Your task to perform on an android device: turn off location history Image 0: 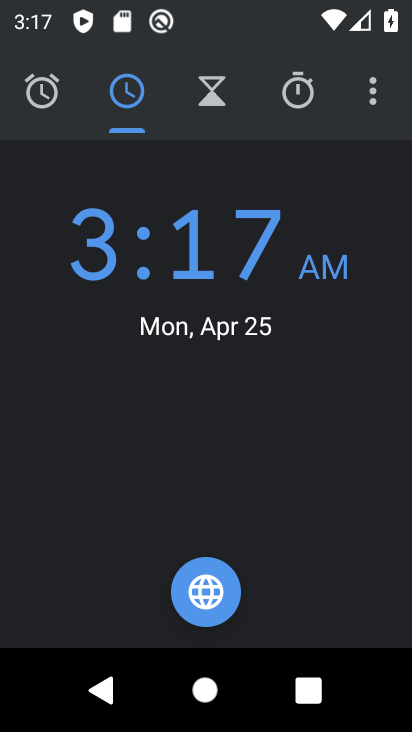
Step 0: press home button
Your task to perform on an android device: turn off location history Image 1: 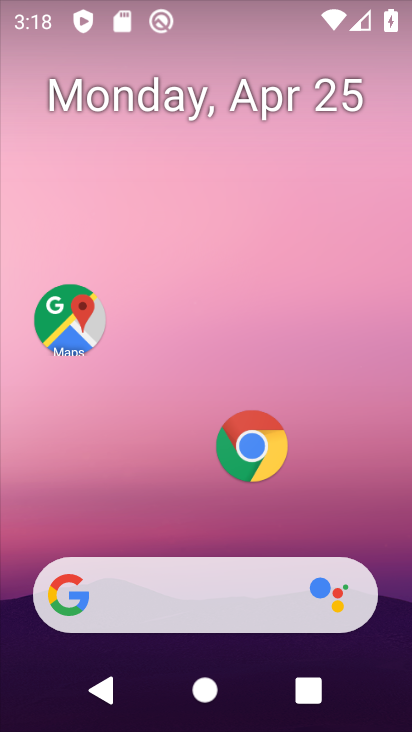
Step 1: drag from (157, 524) to (254, 10)
Your task to perform on an android device: turn off location history Image 2: 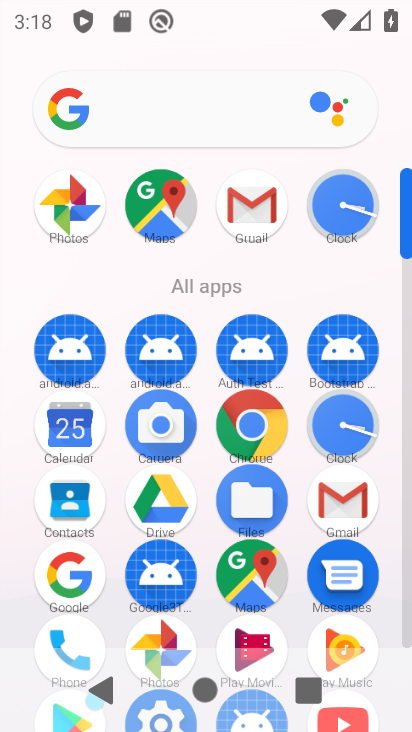
Step 2: drag from (127, 582) to (148, 230)
Your task to perform on an android device: turn off location history Image 3: 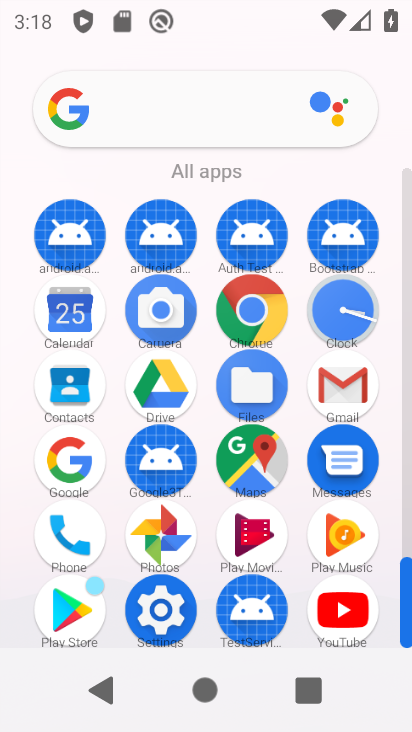
Step 3: click (150, 602)
Your task to perform on an android device: turn off location history Image 4: 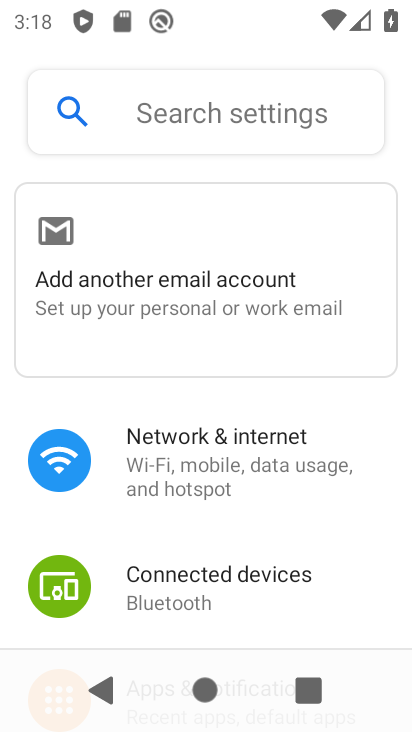
Step 4: drag from (95, 637) to (167, 238)
Your task to perform on an android device: turn off location history Image 5: 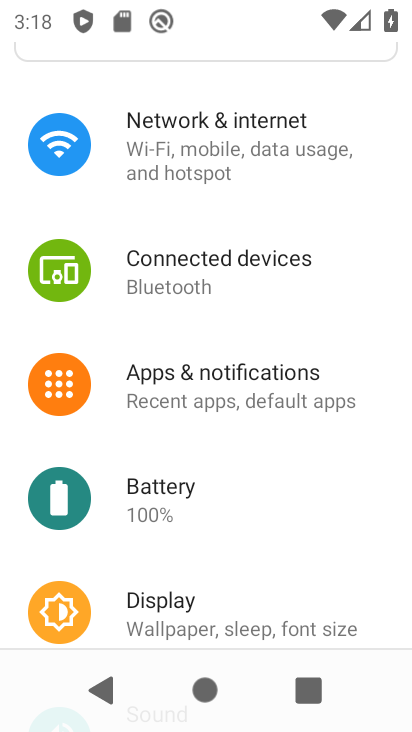
Step 5: drag from (185, 606) to (231, 65)
Your task to perform on an android device: turn off location history Image 6: 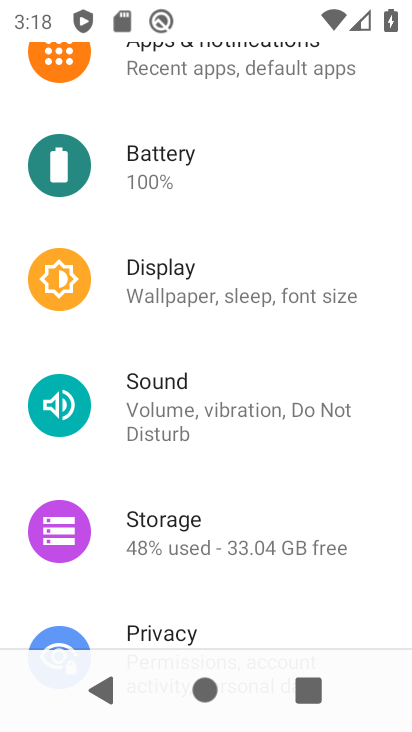
Step 6: drag from (25, 646) to (137, 162)
Your task to perform on an android device: turn off location history Image 7: 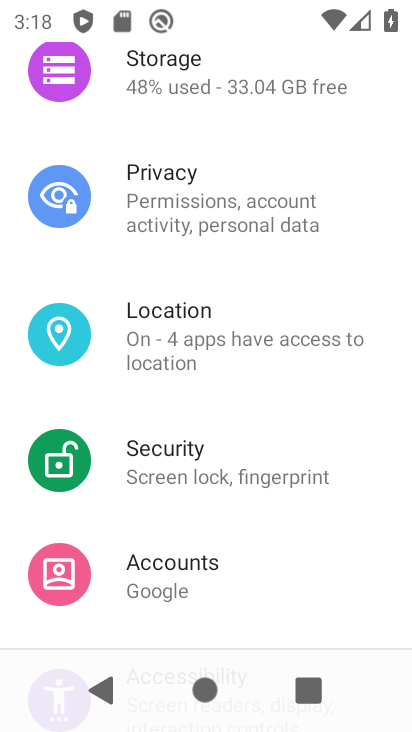
Step 7: click (169, 332)
Your task to perform on an android device: turn off location history Image 8: 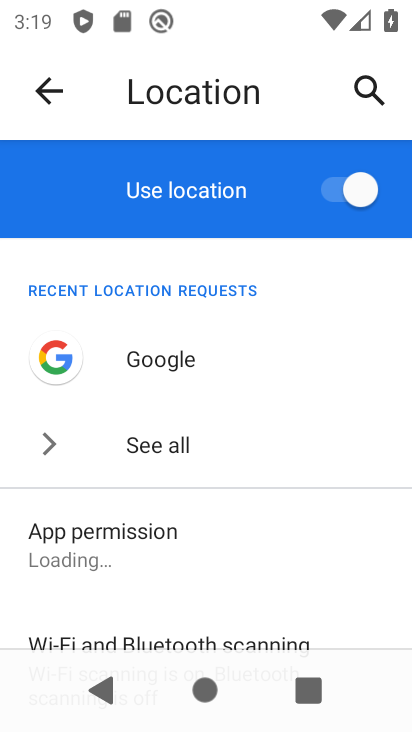
Step 8: drag from (131, 608) to (148, 194)
Your task to perform on an android device: turn off location history Image 9: 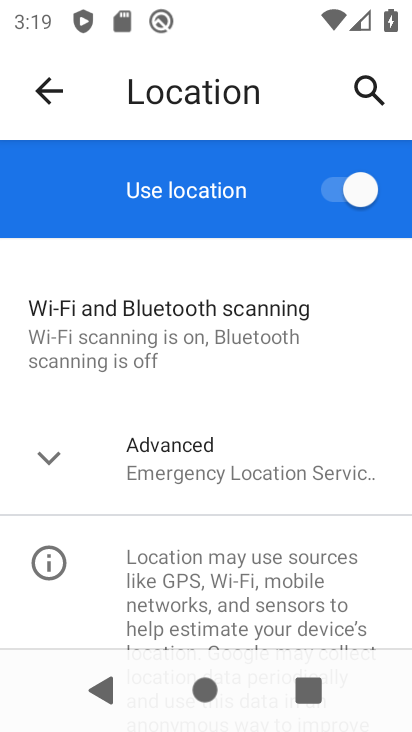
Step 9: click (149, 493)
Your task to perform on an android device: turn off location history Image 10: 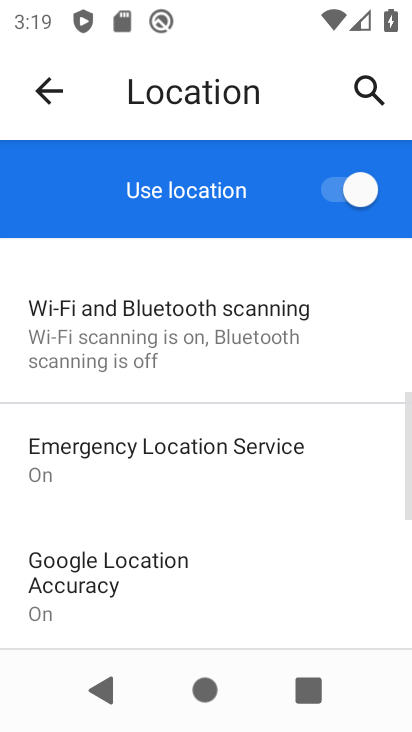
Step 10: drag from (149, 493) to (239, 59)
Your task to perform on an android device: turn off location history Image 11: 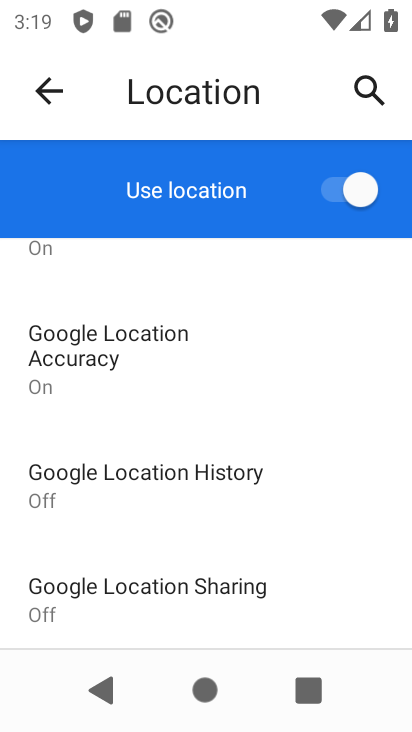
Step 11: click (77, 478)
Your task to perform on an android device: turn off location history Image 12: 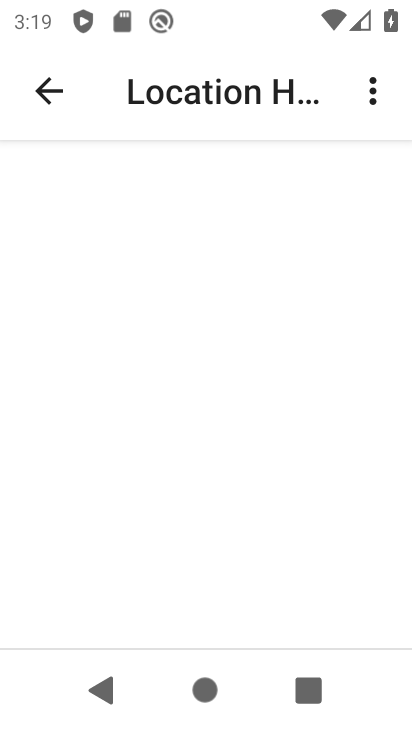
Step 12: task complete